Your task to perform on an android device: set an alarm Image 0: 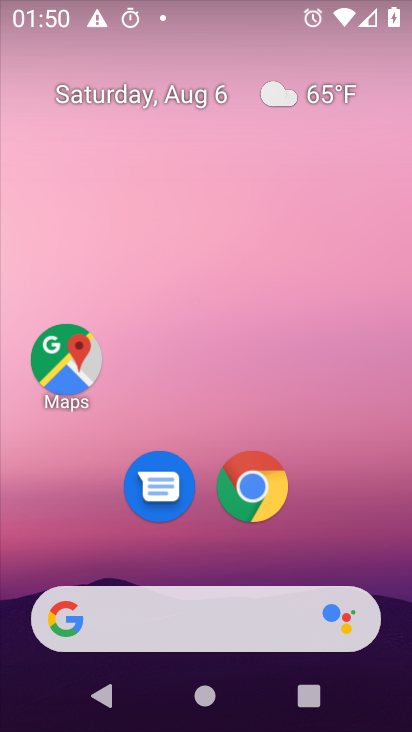
Step 0: drag from (222, 598) to (299, 25)
Your task to perform on an android device: set an alarm Image 1: 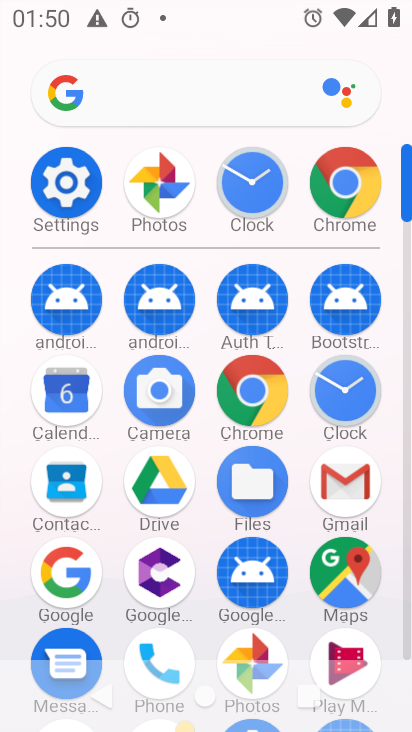
Step 1: click (257, 180)
Your task to perform on an android device: set an alarm Image 2: 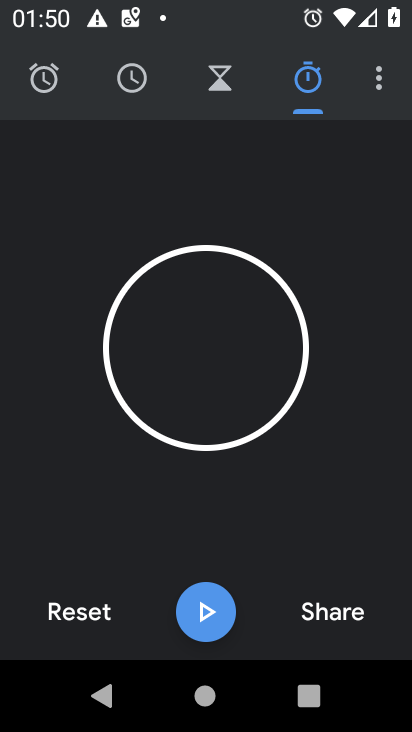
Step 2: click (50, 85)
Your task to perform on an android device: set an alarm Image 3: 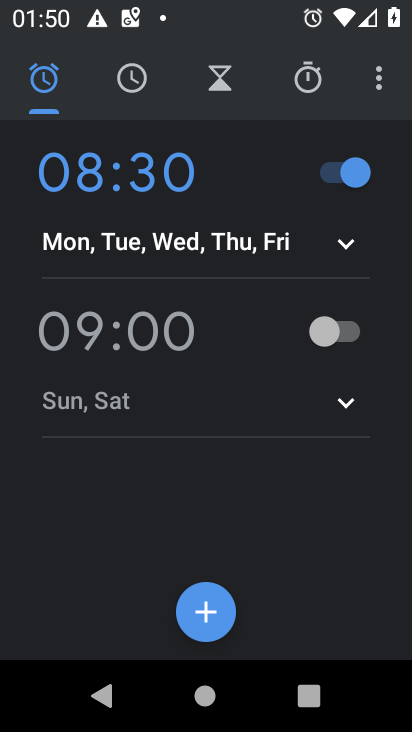
Step 3: click (334, 324)
Your task to perform on an android device: set an alarm Image 4: 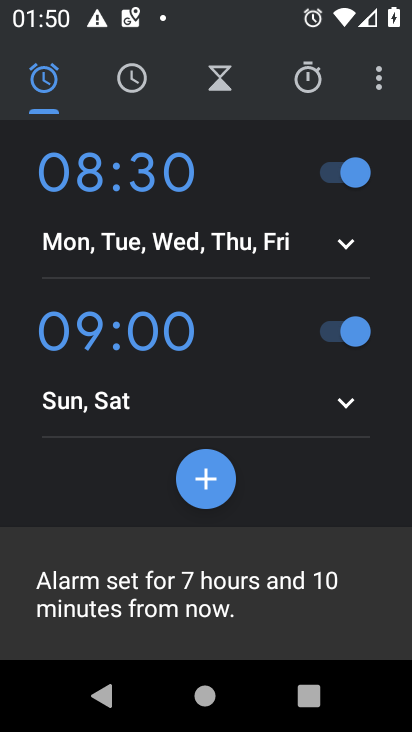
Step 4: task complete